Your task to perform on an android device: visit the assistant section in the google photos Image 0: 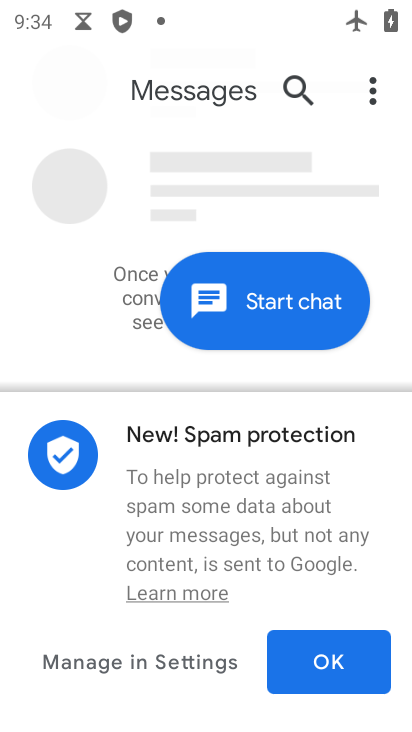
Step 0: press home button
Your task to perform on an android device: visit the assistant section in the google photos Image 1: 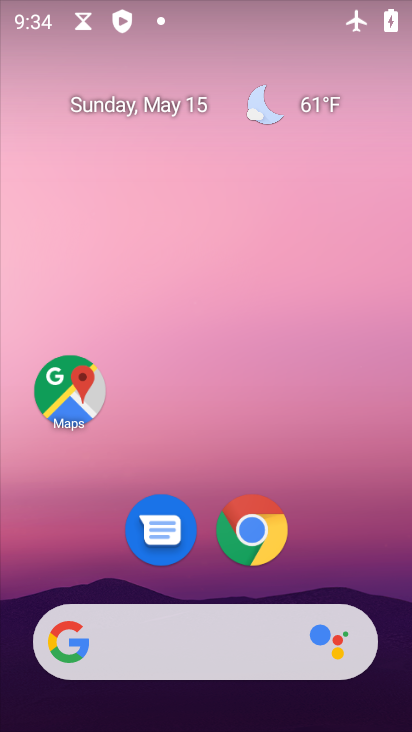
Step 1: drag from (211, 723) to (232, 154)
Your task to perform on an android device: visit the assistant section in the google photos Image 2: 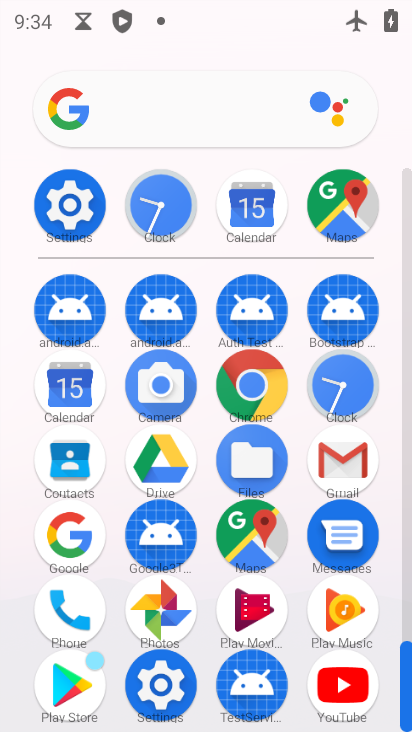
Step 2: click (150, 607)
Your task to perform on an android device: visit the assistant section in the google photos Image 3: 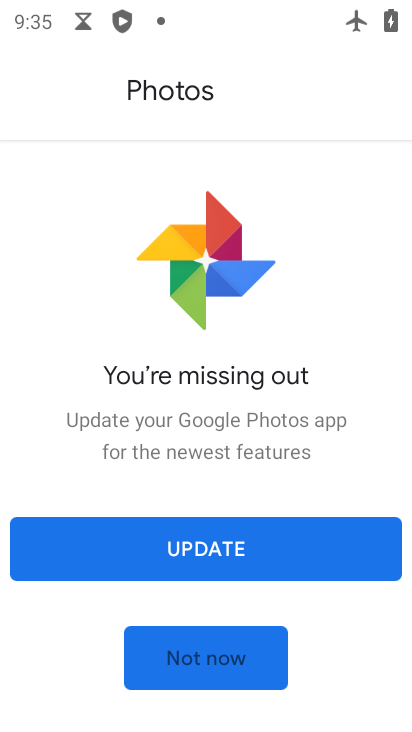
Step 3: task complete